Your task to perform on an android device: Open the calendar app, open the side menu, and click the "Day" option Image 0: 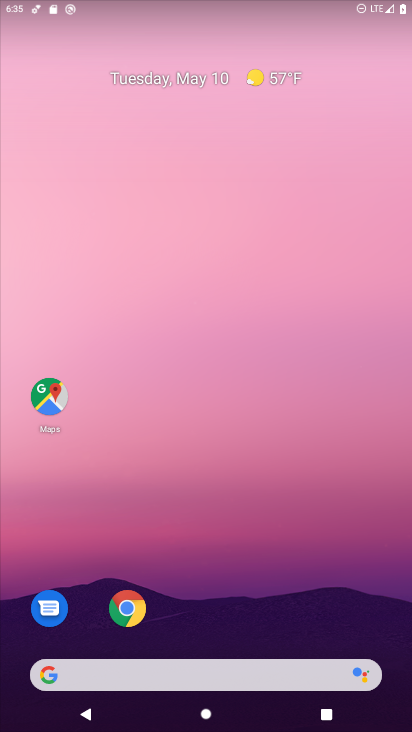
Step 0: drag from (333, 617) to (262, 62)
Your task to perform on an android device: Open the calendar app, open the side menu, and click the "Day" option Image 1: 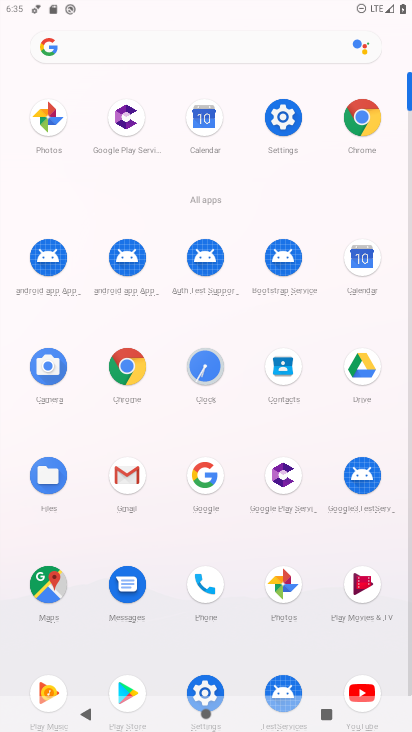
Step 1: click (362, 265)
Your task to perform on an android device: Open the calendar app, open the side menu, and click the "Day" option Image 2: 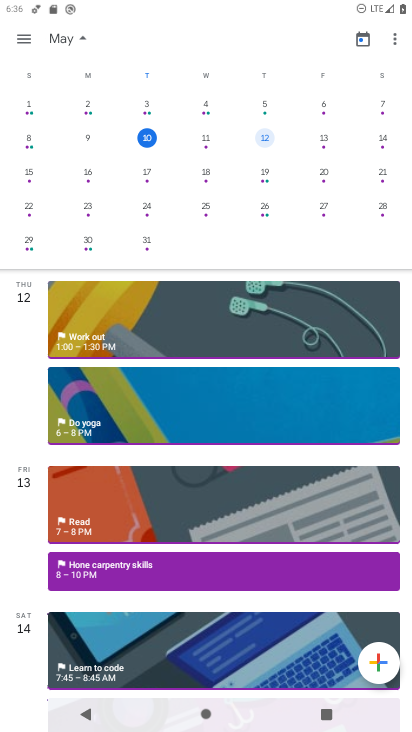
Step 2: click (26, 36)
Your task to perform on an android device: Open the calendar app, open the side menu, and click the "Day" option Image 3: 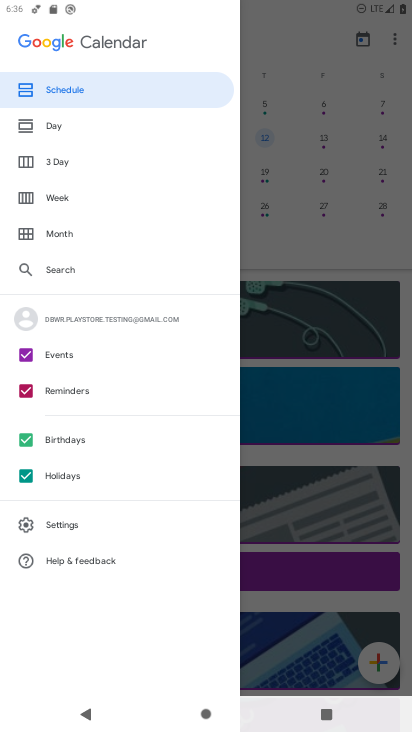
Step 3: click (41, 117)
Your task to perform on an android device: Open the calendar app, open the side menu, and click the "Day" option Image 4: 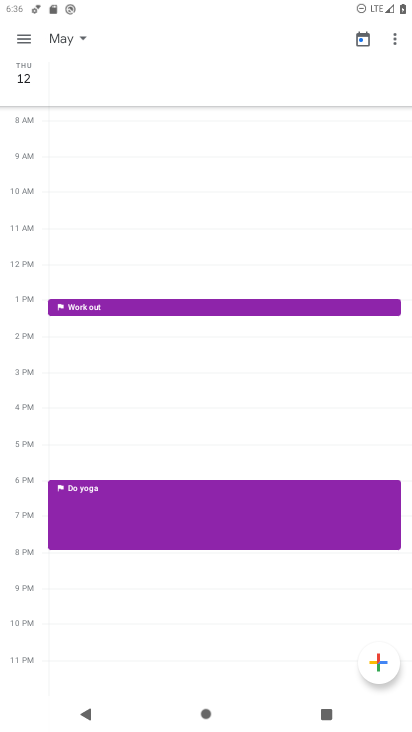
Step 4: task complete